Your task to perform on an android device: What is the news today? Image 0: 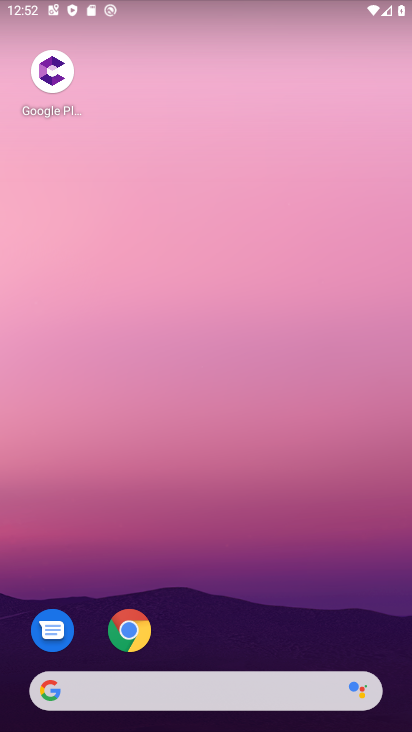
Step 0: drag from (249, 682) to (250, 494)
Your task to perform on an android device: What is the news today? Image 1: 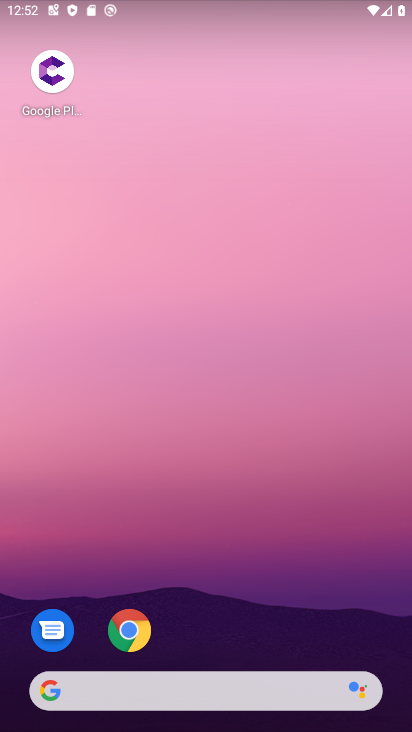
Step 1: drag from (228, 675) to (211, 194)
Your task to perform on an android device: What is the news today? Image 2: 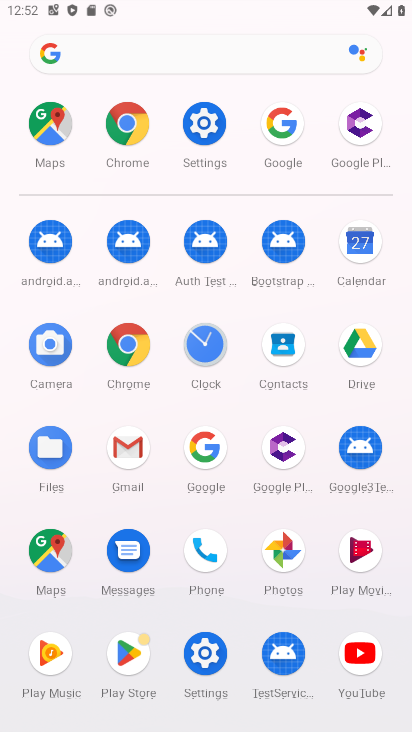
Step 2: click (201, 462)
Your task to perform on an android device: What is the news today? Image 3: 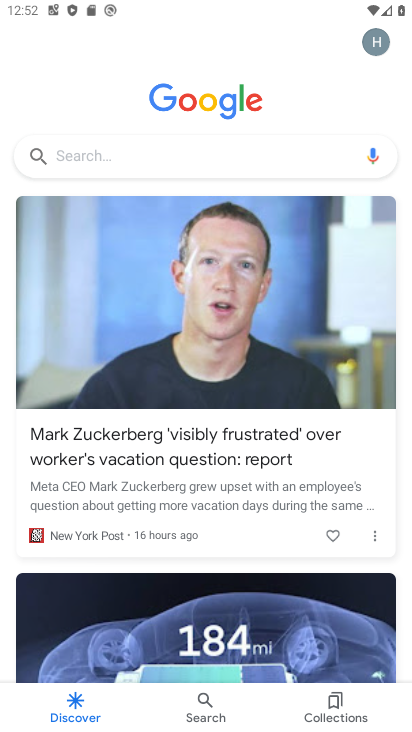
Step 3: drag from (127, 155) to (68, 155)
Your task to perform on an android device: What is the news today? Image 4: 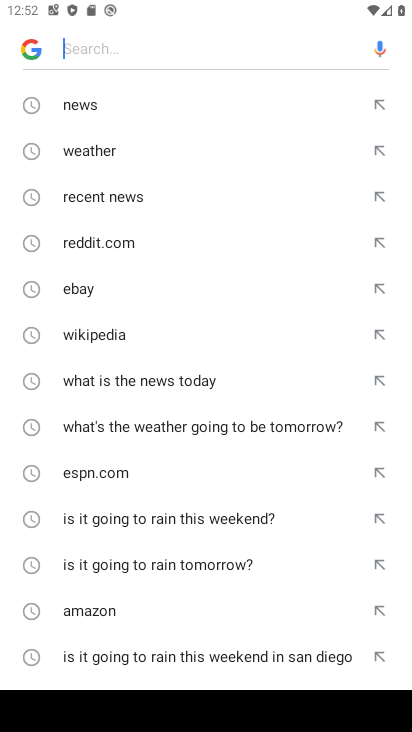
Step 4: click (96, 104)
Your task to perform on an android device: What is the news today? Image 5: 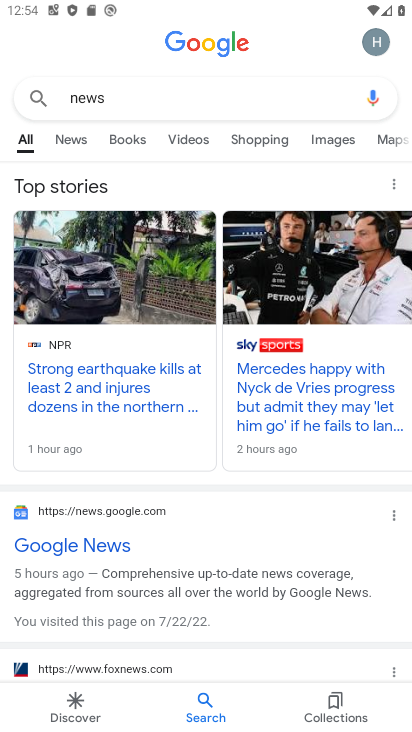
Step 5: task complete